Your task to perform on an android device: Show me popular games on the Play Store Image 0: 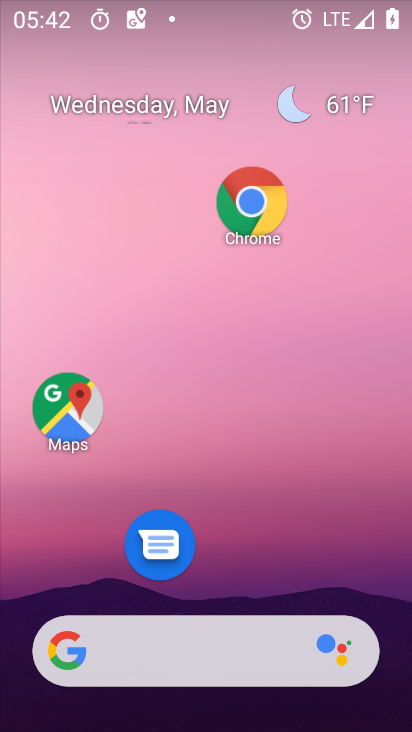
Step 0: drag from (223, 623) to (217, 454)
Your task to perform on an android device: Show me popular games on the Play Store Image 1: 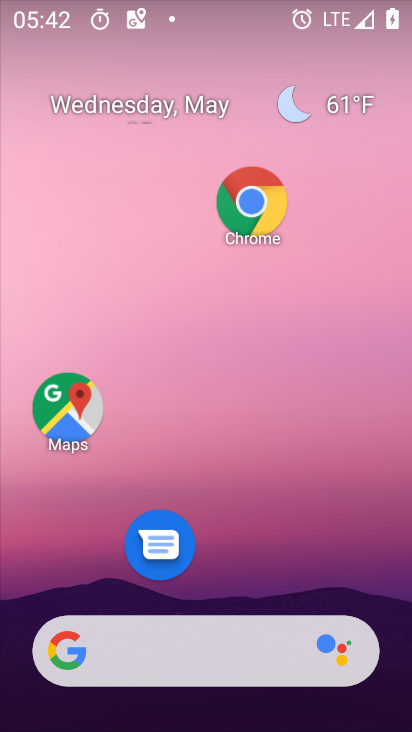
Step 1: drag from (204, 622) to (305, 69)
Your task to perform on an android device: Show me popular games on the Play Store Image 2: 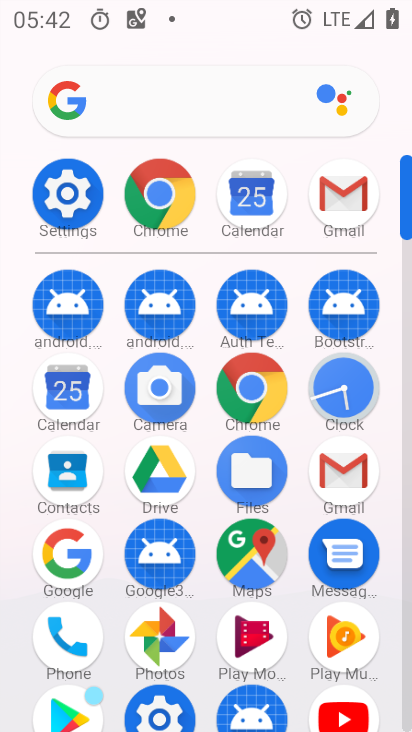
Step 2: drag from (110, 679) to (167, 277)
Your task to perform on an android device: Show me popular games on the Play Store Image 3: 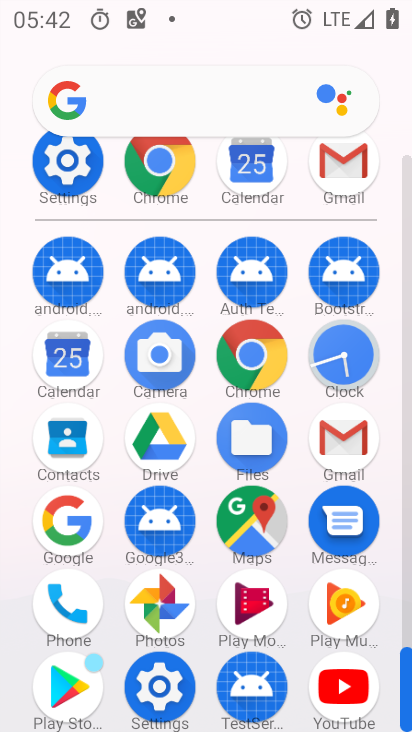
Step 3: click (70, 688)
Your task to perform on an android device: Show me popular games on the Play Store Image 4: 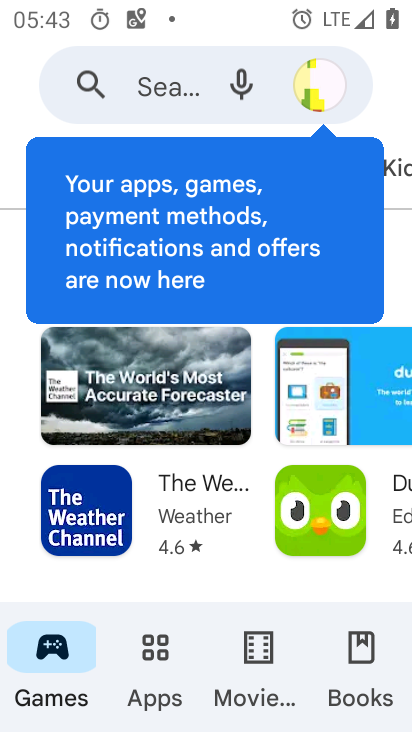
Step 4: click (152, 645)
Your task to perform on an android device: Show me popular games on the Play Store Image 5: 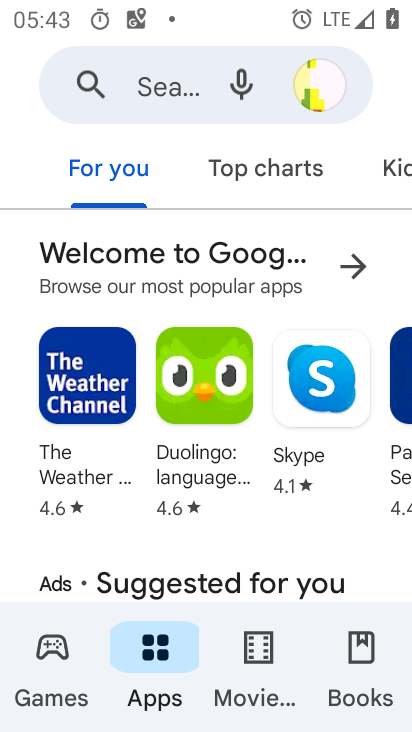
Step 5: task complete